Your task to perform on an android device: change keyboard looks Image 0: 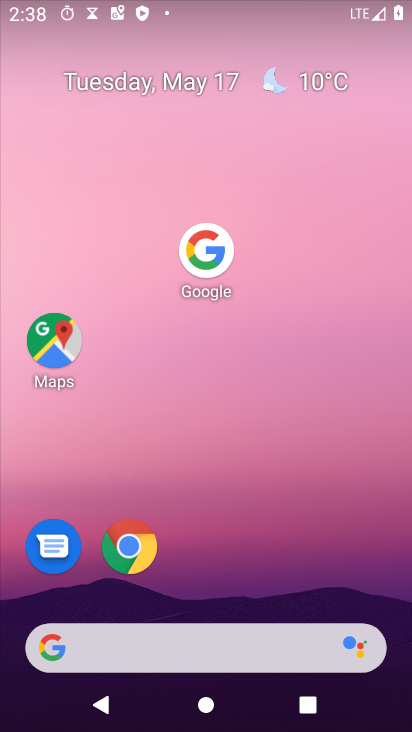
Step 0: press home button
Your task to perform on an android device: change keyboard looks Image 1: 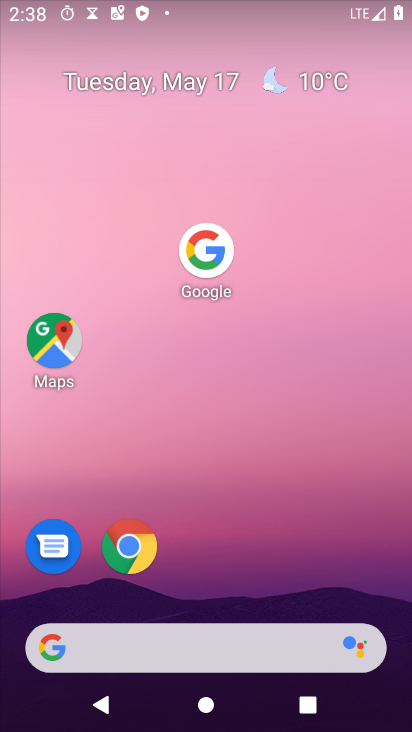
Step 1: drag from (152, 647) to (298, 165)
Your task to perform on an android device: change keyboard looks Image 2: 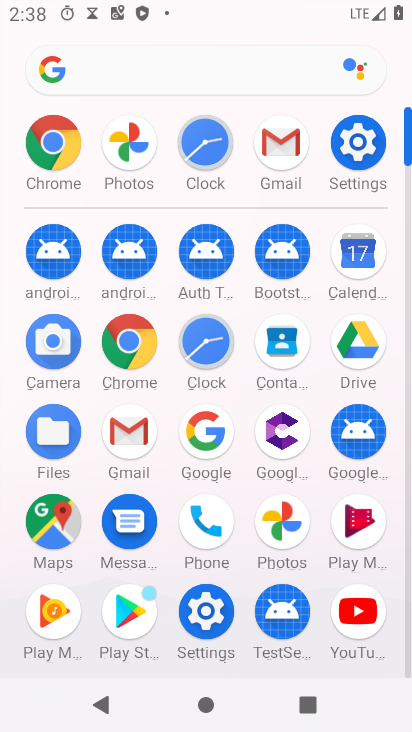
Step 2: click (356, 152)
Your task to perform on an android device: change keyboard looks Image 3: 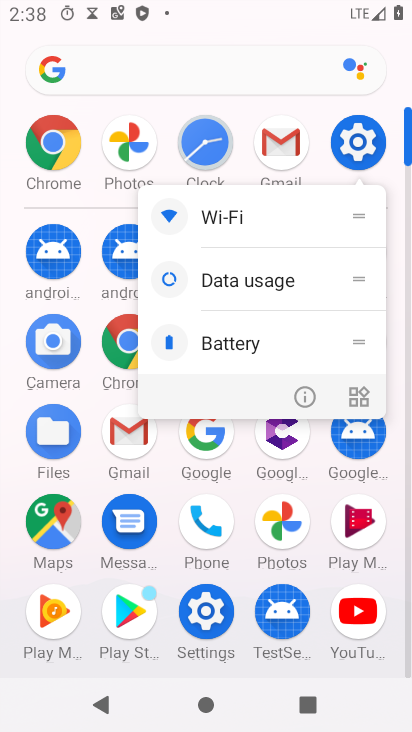
Step 3: click (357, 139)
Your task to perform on an android device: change keyboard looks Image 4: 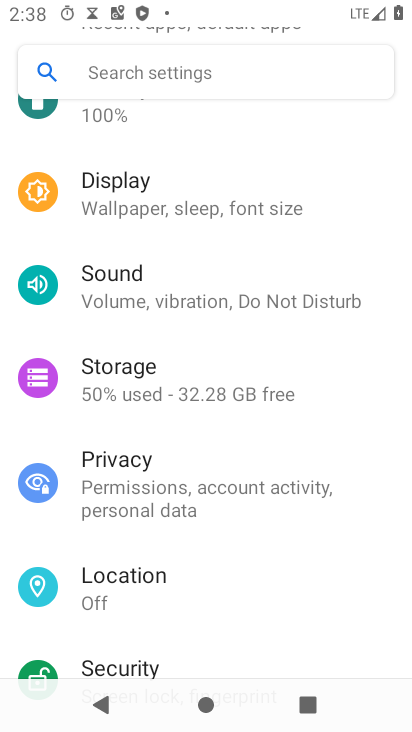
Step 4: drag from (234, 616) to (363, 24)
Your task to perform on an android device: change keyboard looks Image 5: 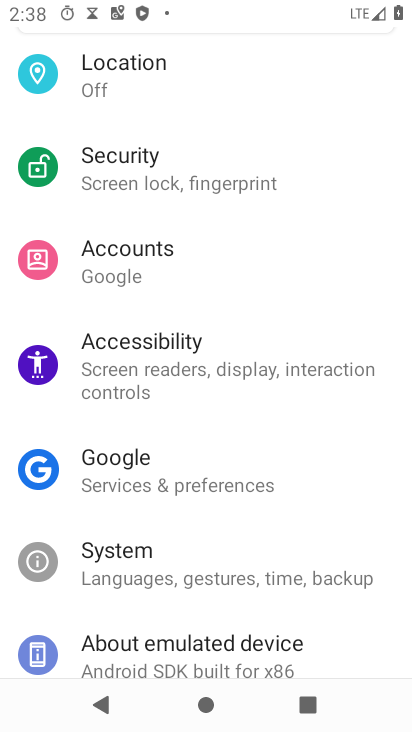
Step 5: click (140, 521)
Your task to perform on an android device: change keyboard looks Image 6: 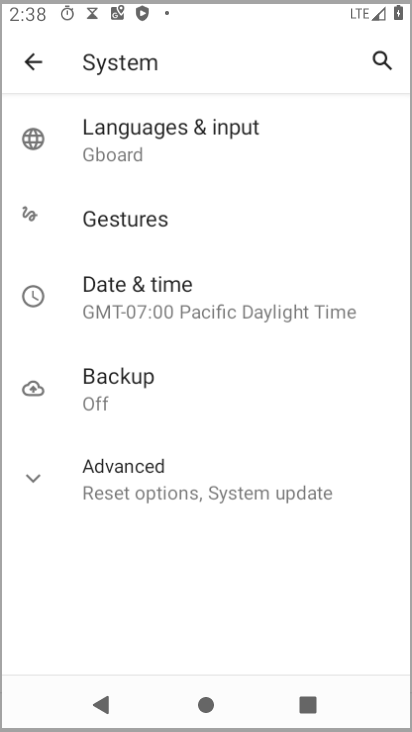
Step 6: click (129, 554)
Your task to perform on an android device: change keyboard looks Image 7: 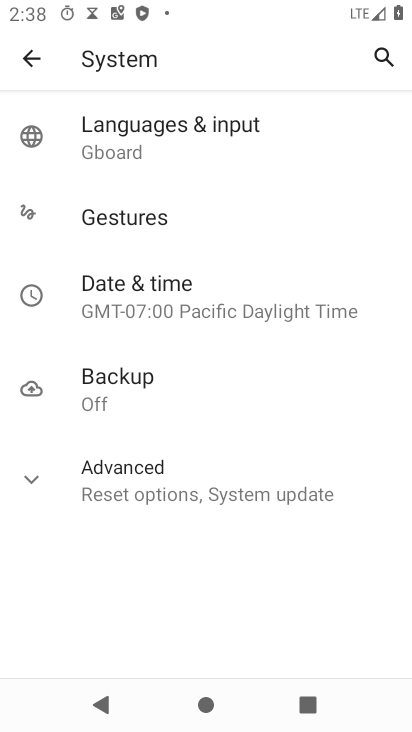
Step 7: click (144, 133)
Your task to perform on an android device: change keyboard looks Image 8: 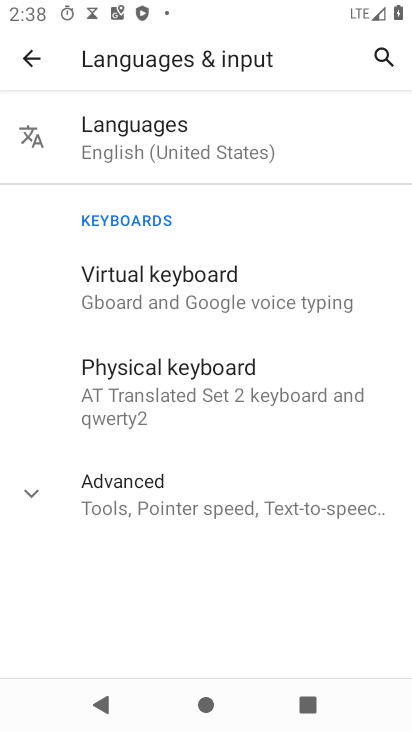
Step 8: click (148, 277)
Your task to perform on an android device: change keyboard looks Image 9: 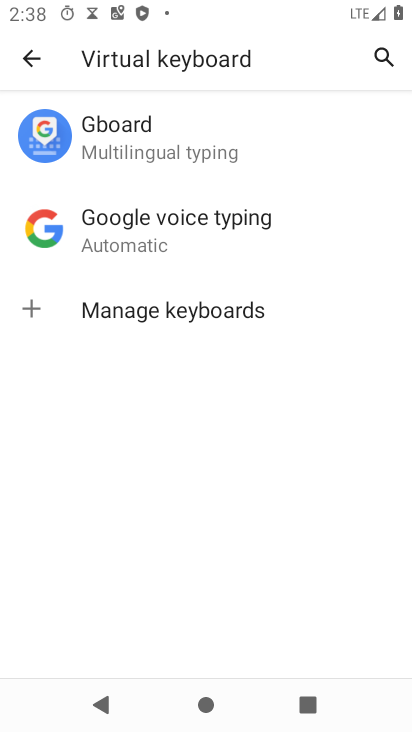
Step 9: click (167, 126)
Your task to perform on an android device: change keyboard looks Image 10: 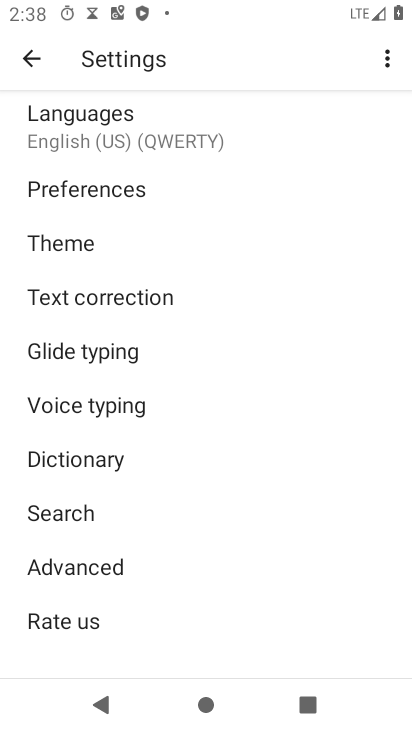
Step 10: click (76, 249)
Your task to perform on an android device: change keyboard looks Image 11: 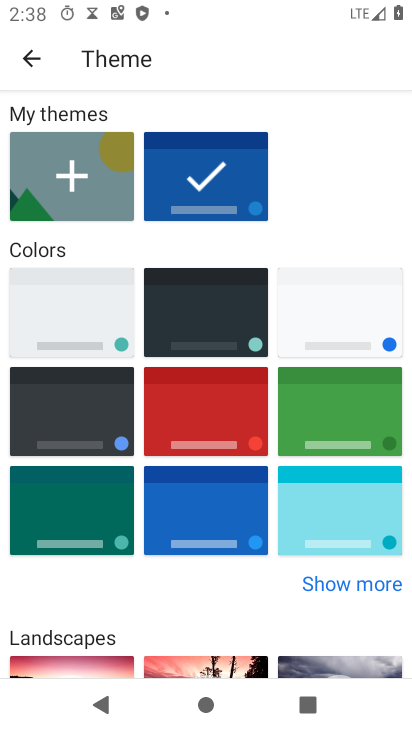
Step 11: click (324, 496)
Your task to perform on an android device: change keyboard looks Image 12: 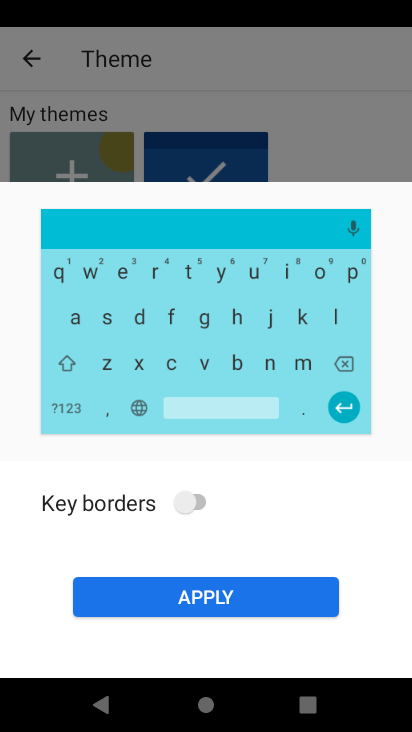
Step 12: click (238, 592)
Your task to perform on an android device: change keyboard looks Image 13: 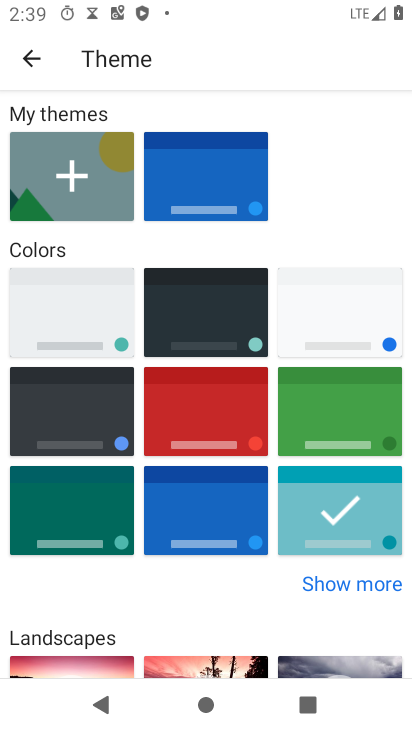
Step 13: task complete